Your task to perform on an android device: When is my next appointment? Image 0: 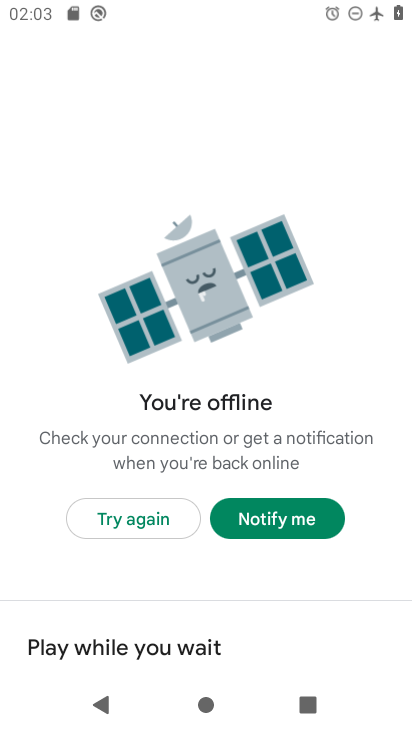
Step 0: press home button
Your task to perform on an android device: When is my next appointment? Image 1: 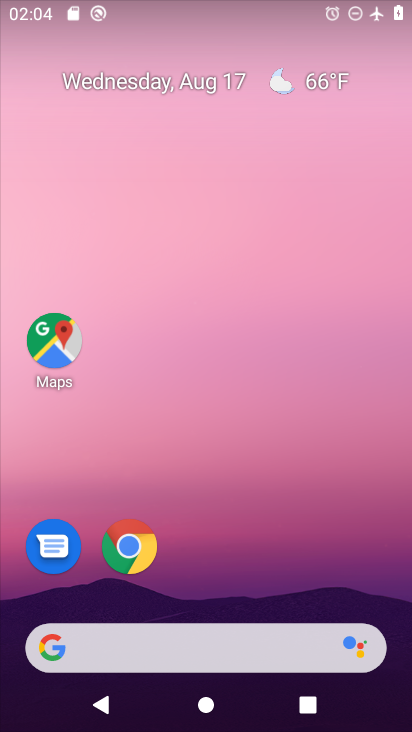
Step 1: drag from (236, 553) to (236, 119)
Your task to perform on an android device: When is my next appointment? Image 2: 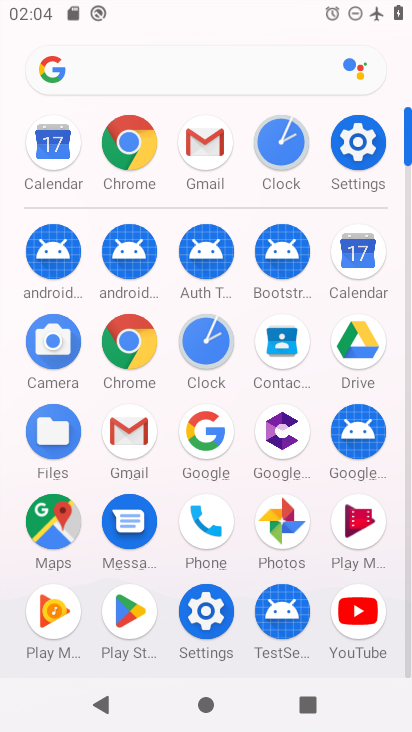
Step 2: click (360, 248)
Your task to perform on an android device: When is my next appointment? Image 3: 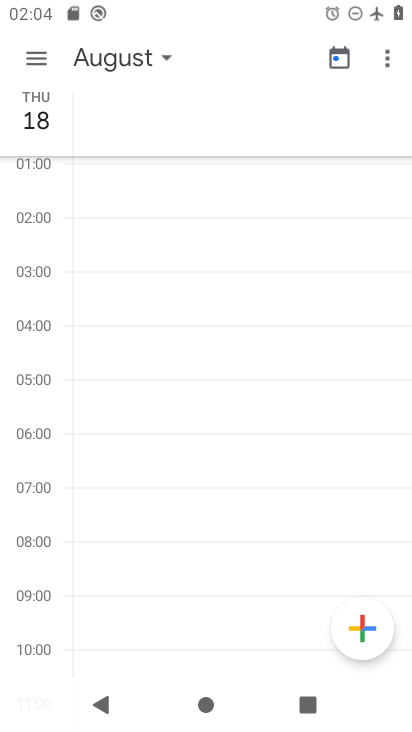
Step 3: click (32, 55)
Your task to perform on an android device: When is my next appointment? Image 4: 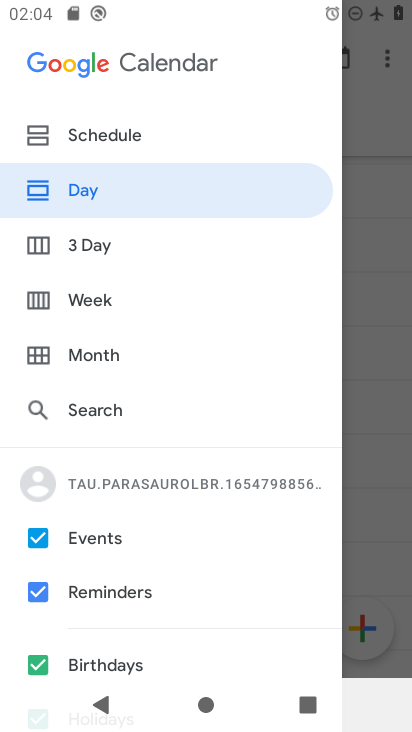
Step 4: click (85, 185)
Your task to perform on an android device: When is my next appointment? Image 5: 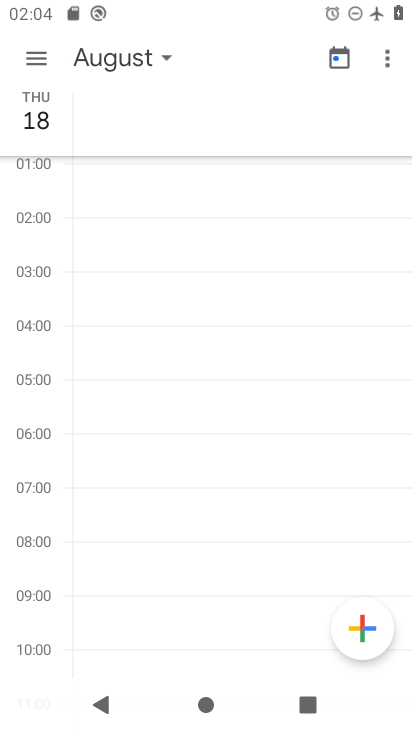
Step 5: click (161, 58)
Your task to perform on an android device: When is my next appointment? Image 6: 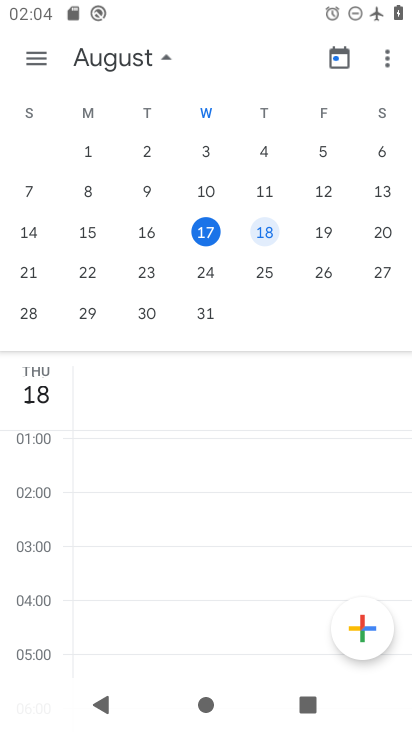
Step 6: click (213, 228)
Your task to perform on an android device: When is my next appointment? Image 7: 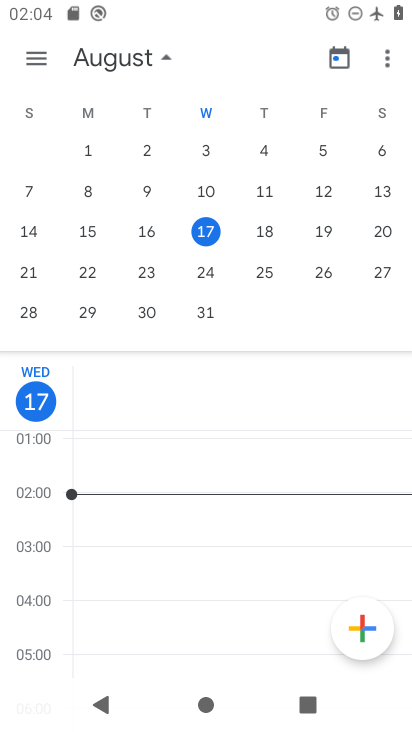
Step 7: task complete